Your task to perform on an android device: set an alarm Image 0: 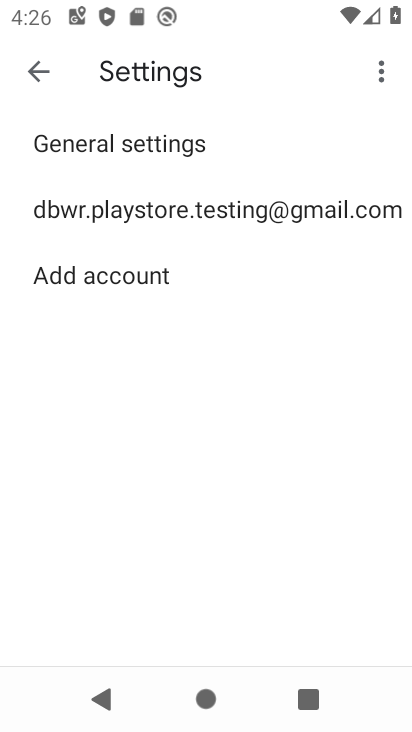
Step 0: press home button
Your task to perform on an android device: set an alarm Image 1: 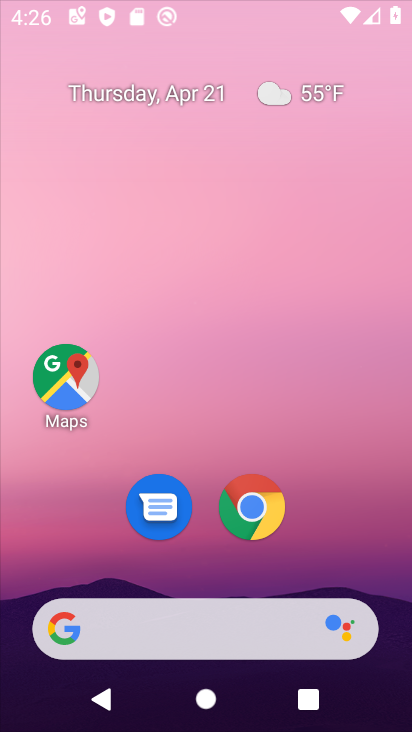
Step 1: drag from (322, 435) to (331, 148)
Your task to perform on an android device: set an alarm Image 2: 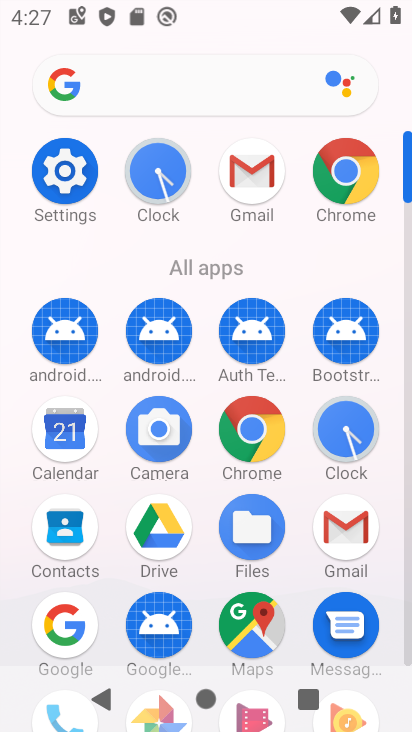
Step 2: click (158, 167)
Your task to perform on an android device: set an alarm Image 3: 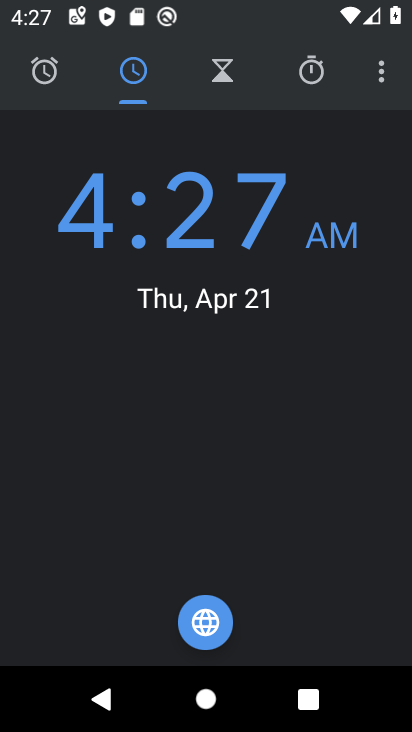
Step 3: click (71, 75)
Your task to perform on an android device: set an alarm Image 4: 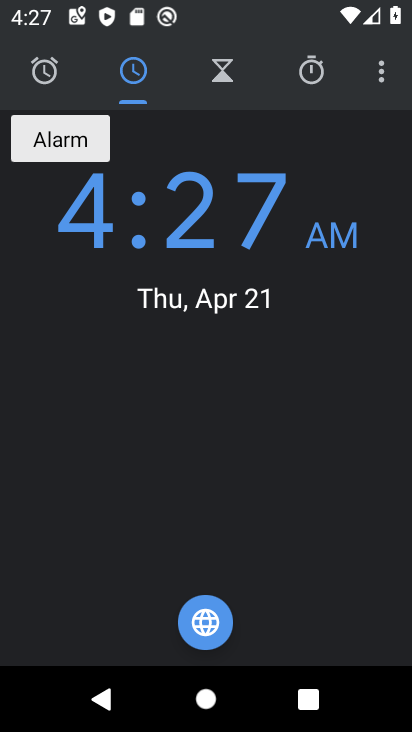
Step 4: click (51, 70)
Your task to perform on an android device: set an alarm Image 5: 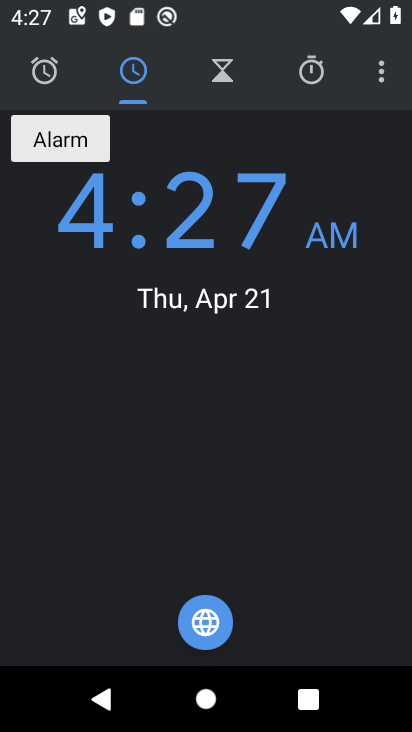
Step 5: click (49, 69)
Your task to perform on an android device: set an alarm Image 6: 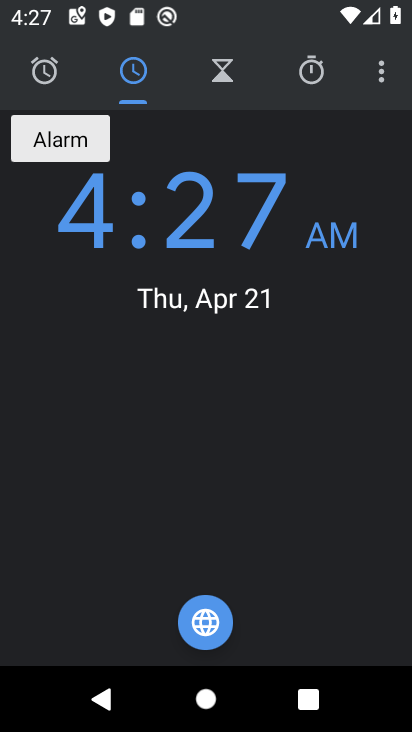
Step 6: click (49, 69)
Your task to perform on an android device: set an alarm Image 7: 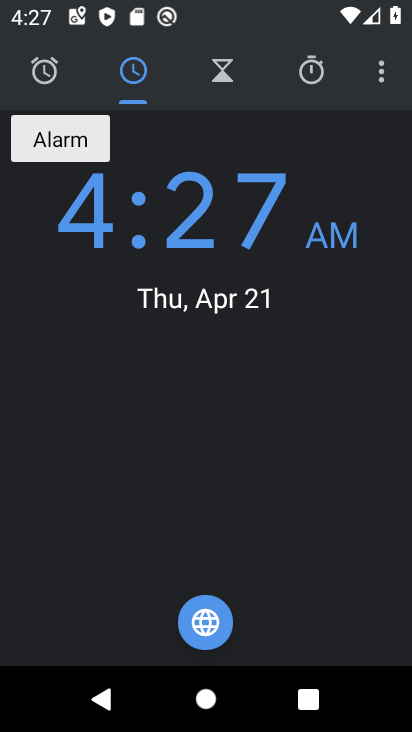
Step 7: click (49, 68)
Your task to perform on an android device: set an alarm Image 8: 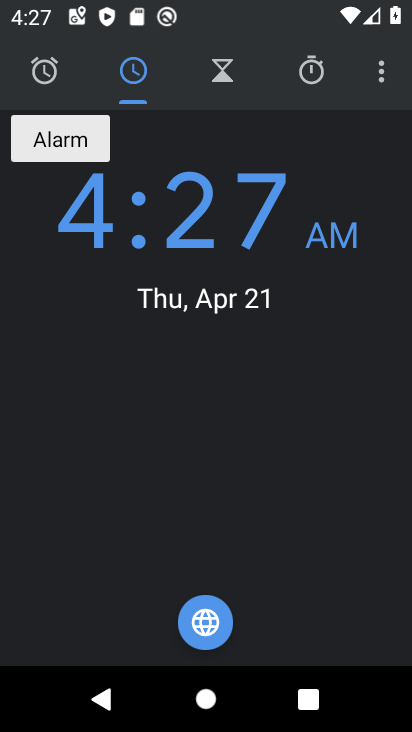
Step 8: click (49, 67)
Your task to perform on an android device: set an alarm Image 9: 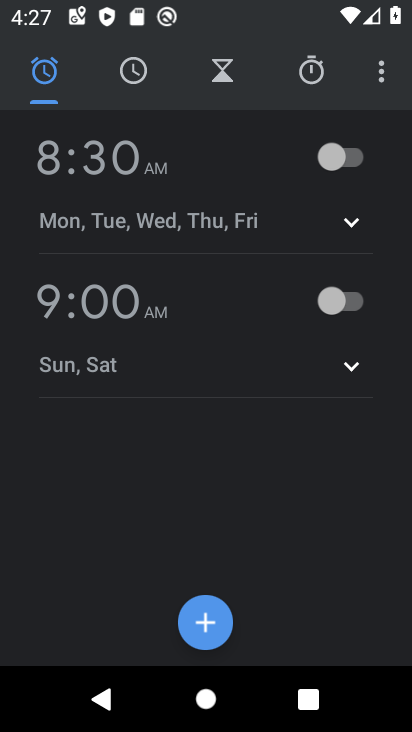
Step 9: click (49, 67)
Your task to perform on an android device: set an alarm Image 10: 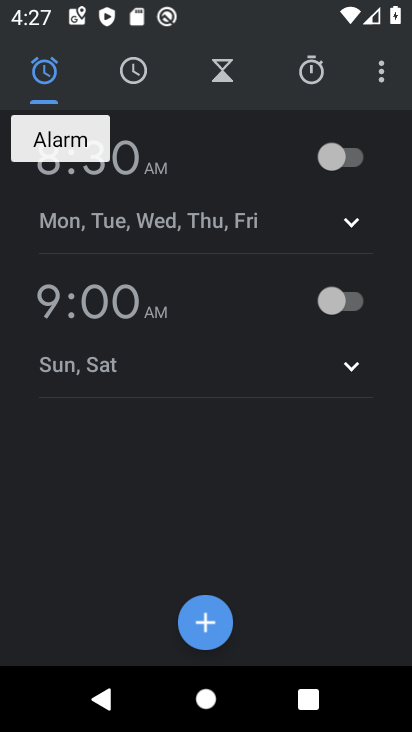
Step 10: click (347, 154)
Your task to perform on an android device: set an alarm Image 11: 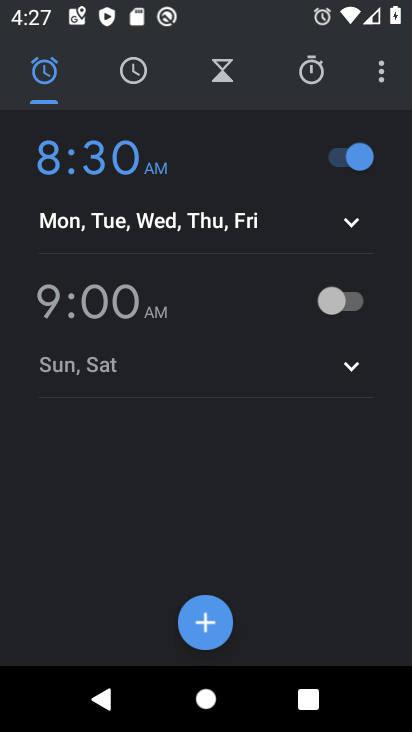
Step 11: task complete